Your task to perform on an android device: toggle sleep mode Image 0: 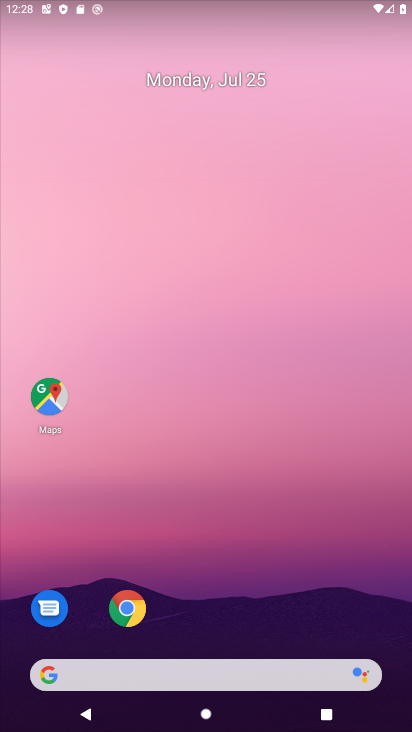
Step 0: drag from (272, 593) to (318, 111)
Your task to perform on an android device: toggle sleep mode Image 1: 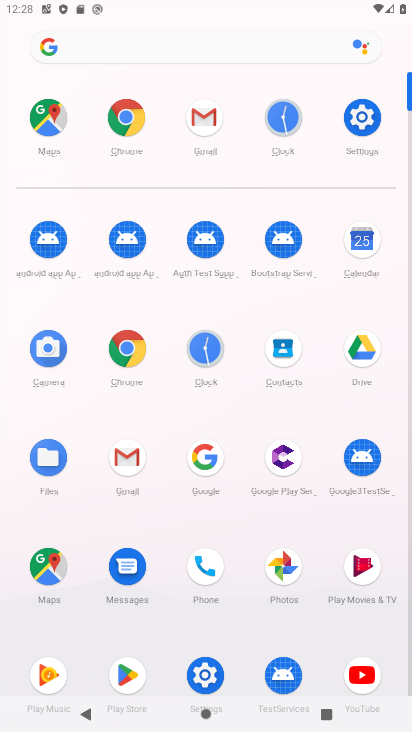
Step 1: click (367, 133)
Your task to perform on an android device: toggle sleep mode Image 2: 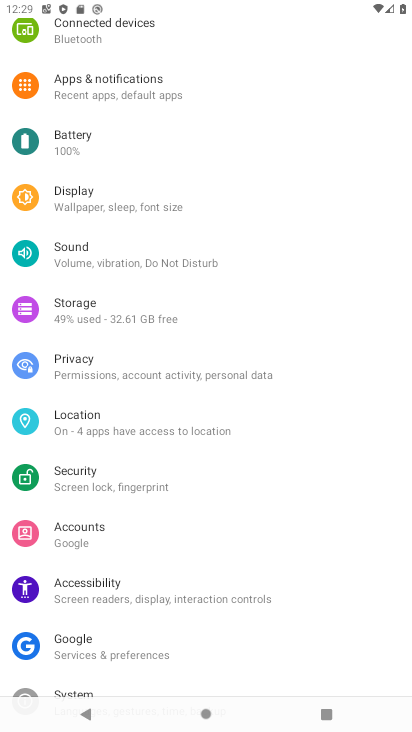
Step 2: task complete